Your task to perform on an android device: Show me the alarms in the clock app Image 0: 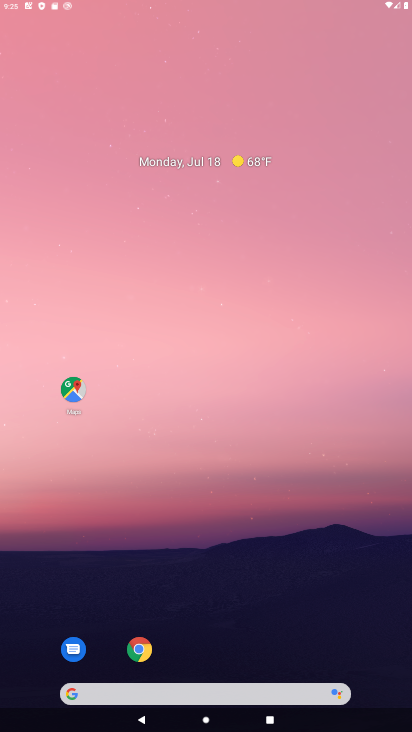
Step 0: click (186, 372)
Your task to perform on an android device: Show me the alarms in the clock app Image 1: 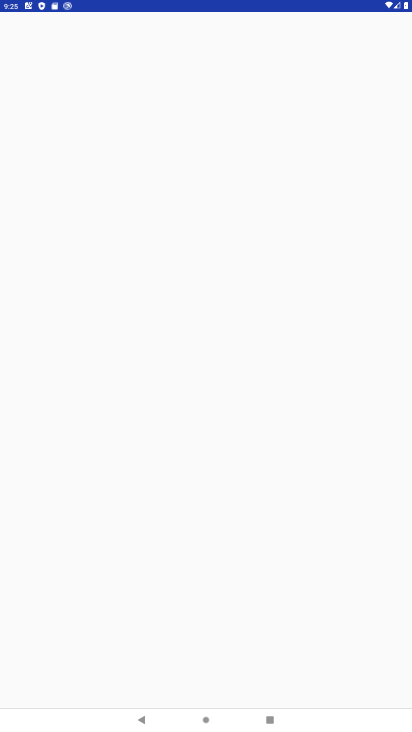
Step 1: drag from (169, 717) to (261, 176)
Your task to perform on an android device: Show me the alarms in the clock app Image 2: 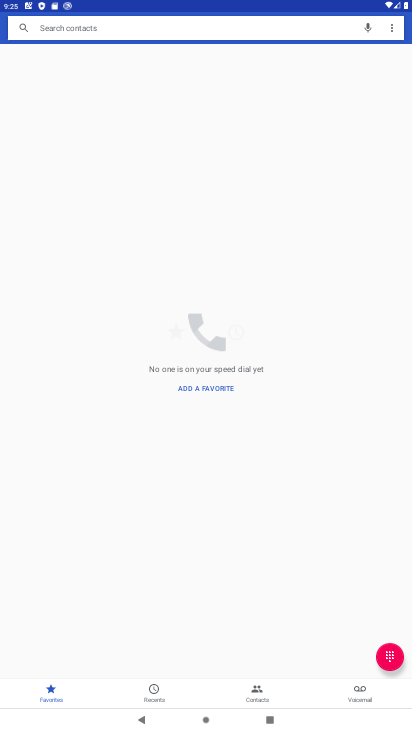
Step 2: press home button
Your task to perform on an android device: Show me the alarms in the clock app Image 3: 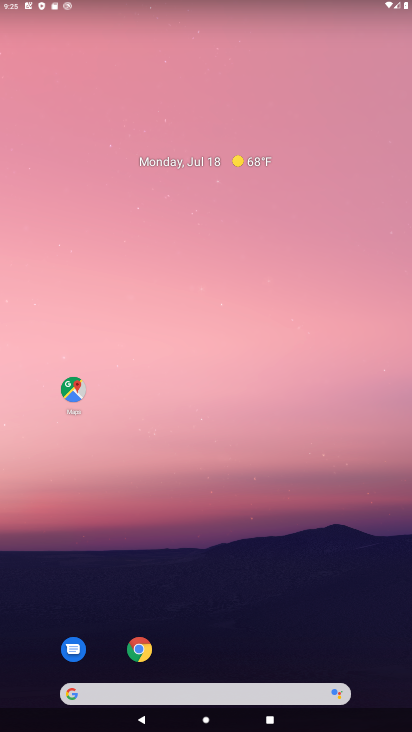
Step 3: drag from (99, 726) to (222, 62)
Your task to perform on an android device: Show me the alarms in the clock app Image 4: 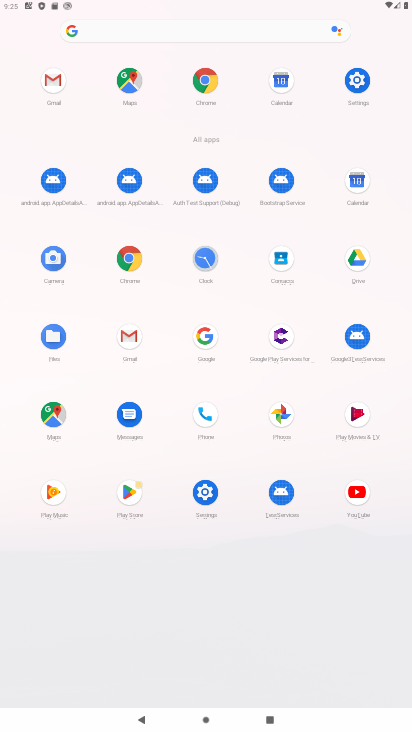
Step 4: click (211, 261)
Your task to perform on an android device: Show me the alarms in the clock app Image 5: 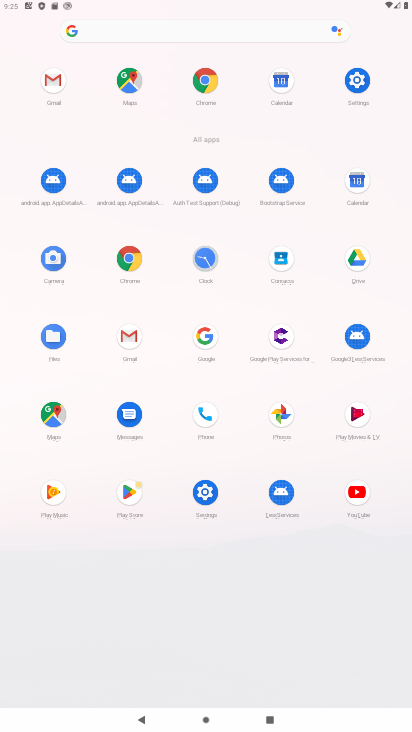
Step 5: click (211, 261)
Your task to perform on an android device: Show me the alarms in the clock app Image 6: 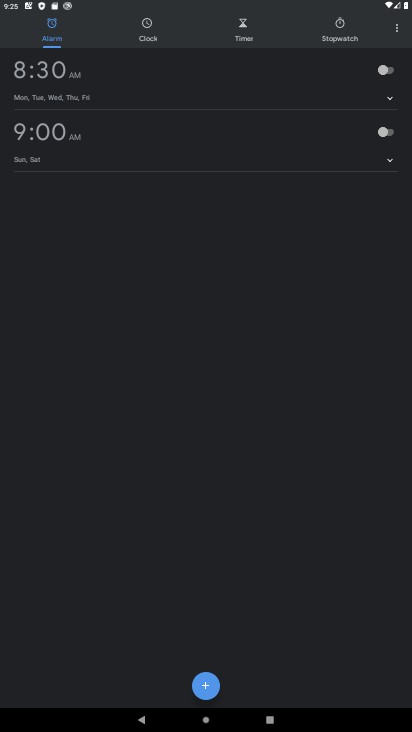
Step 6: task complete